Your task to perform on an android device: Clear the shopping cart on walmart. Add "apple airpods" to the cart on walmart Image 0: 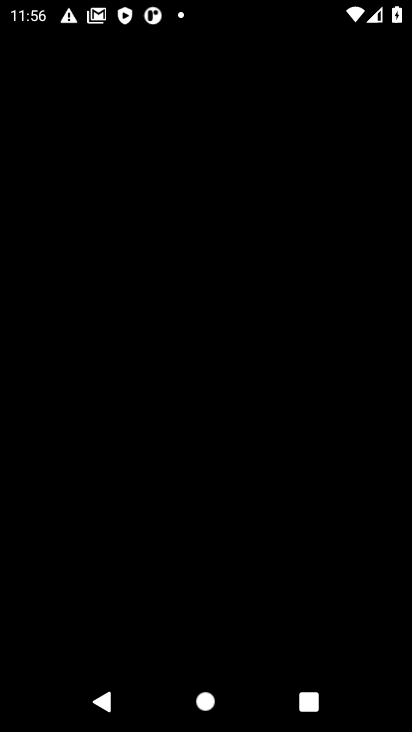
Step 0: press home button
Your task to perform on an android device: Clear the shopping cart on walmart. Add "apple airpods" to the cart on walmart Image 1: 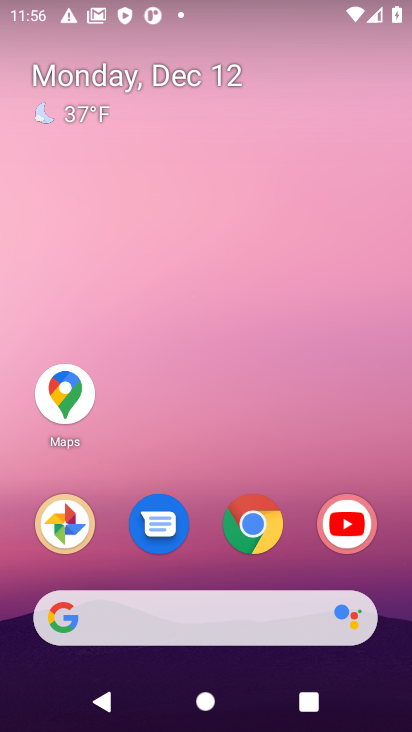
Step 1: click (250, 534)
Your task to perform on an android device: Clear the shopping cart on walmart. Add "apple airpods" to the cart on walmart Image 2: 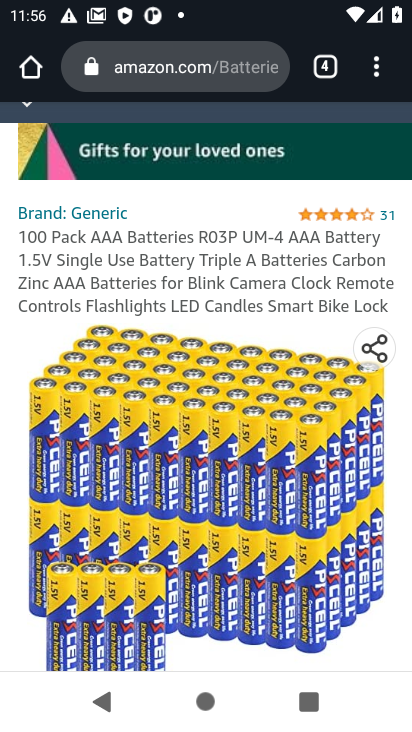
Step 2: click (155, 71)
Your task to perform on an android device: Clear the shopping cart on walmart. Add "apple airpods" to the cart on walmart Image 3: 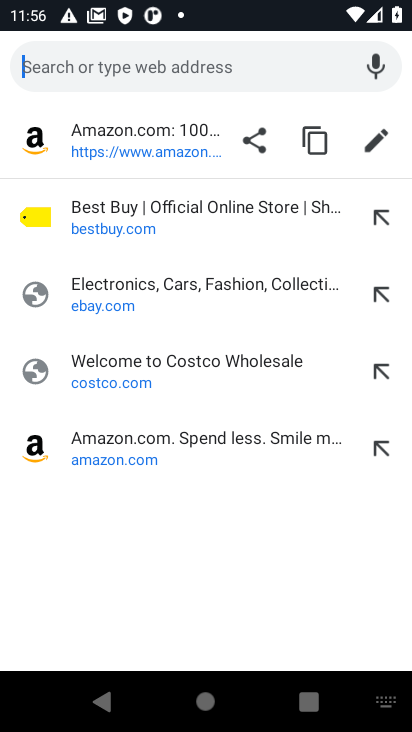
Step 3: type "walmart.com"
Your task to perform on an android device: Clear the shopping cart on walmart. Add "apple airpods" to the cart on walmart Image 4: 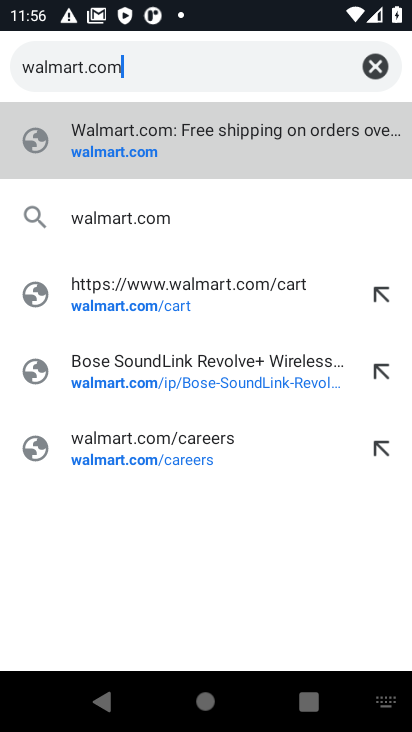
Step 4: click (110, 161)
Your task to perform on an android device: Clear the shopping cart on walmart. Add "apple airpods" to the cart on walmart Image 5: 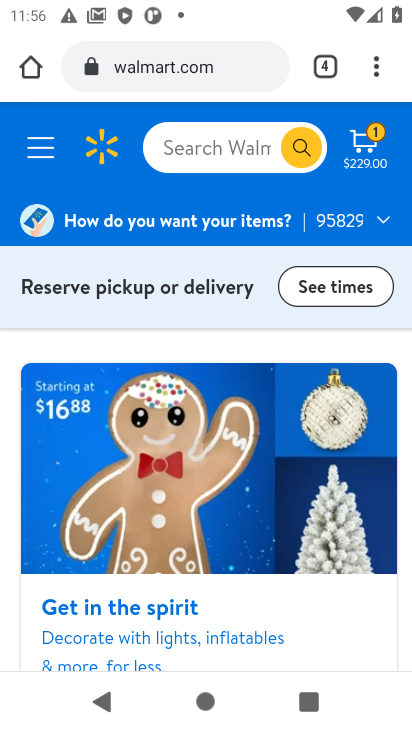
Step 5: click (370, 150)
Your task to perform on an android device: Clear the shopping cart on walmart. Add "apple airpods" to the cart on walmart Image 6: 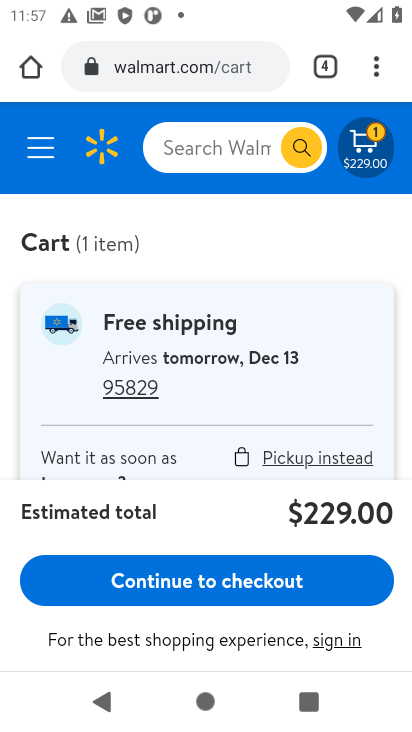
Step 6: drag from (236, 500) to (225, 317)
Your task to perform on an android device: Clear the shopping cart on walmart. Add "apple airpods" to the cart on walmart Image 7: 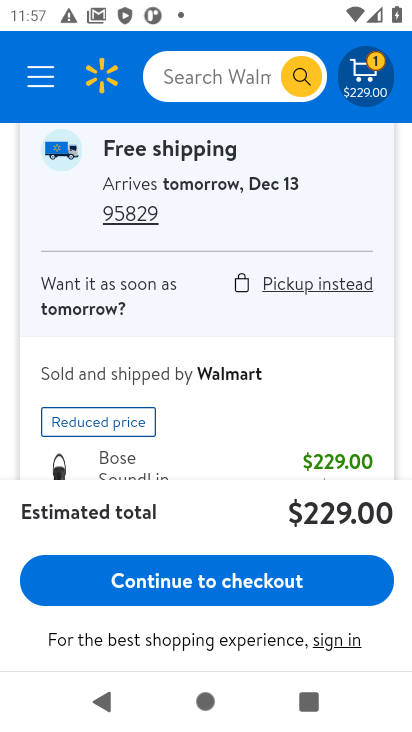
Step 7: drag from (226, 399) to (209, 186)
Your task to perform on an android device: Clear the shopping cart on walmart. Add "apple airpods" to the cart on walmart Image 8: 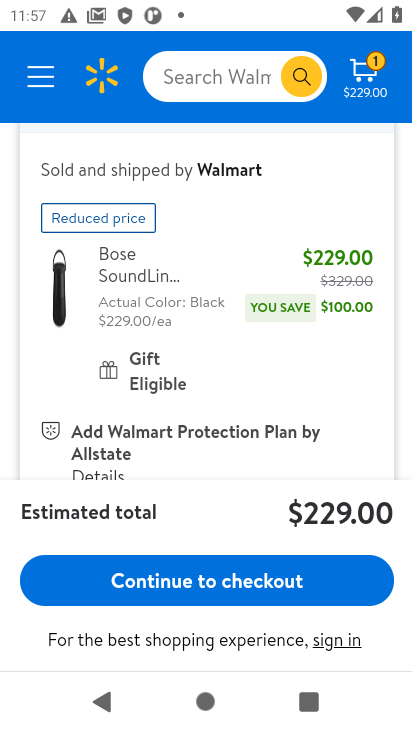
Step 8: drag from (154, 377) to (150, 189)
Your task to perform on an android device: Clear the shopping cart on walmart. Add "apple airpods" to the cart on walmart Image 9: 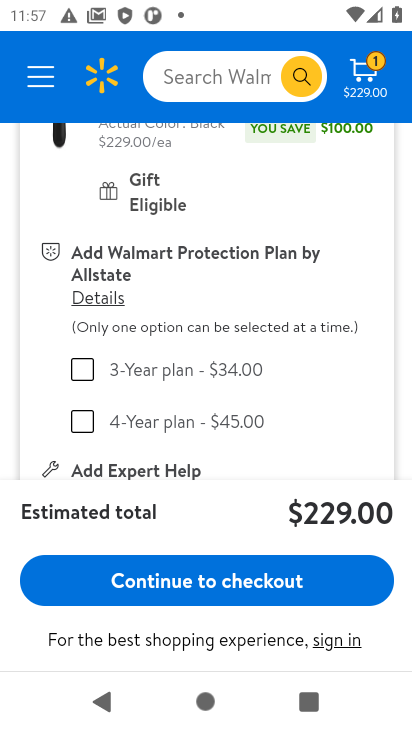
Step 9: drag from (246, 454) to (252, 222)
Your task to perform on an android device: Clear the shopping cart on walmart. Add "apple airpods" to the cart on walmart Image 10: 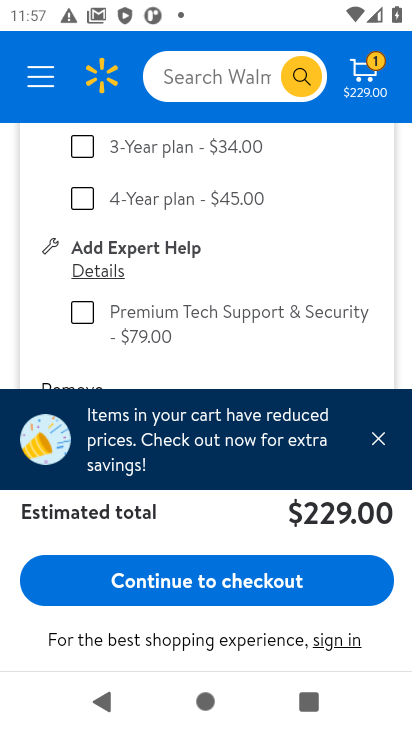
Step 10: click (80, 389)
Your task to perform on an android device: Clear the shopping cart on walmart. Add "apple airpods" to the cart on walmart Image 11: 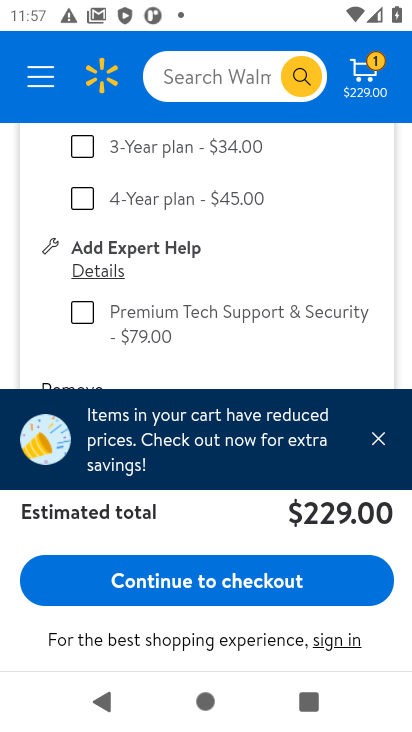
Step 11: click (383, 446)
Your task to perform on an android device: Clear the shopping cart on walmart. Add "apple airpods" to the cart on walmart Image 12: 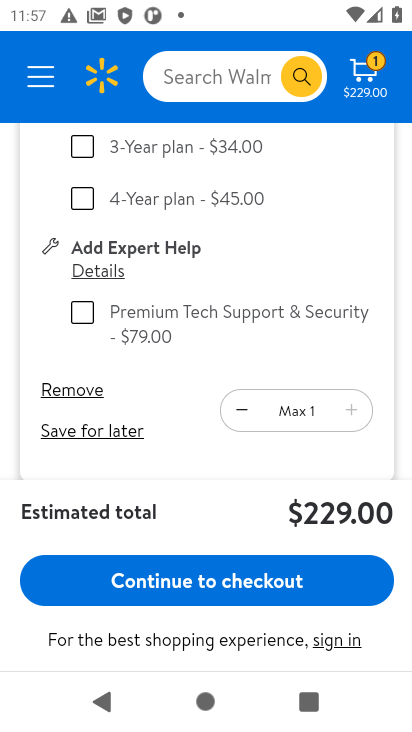
Step 12: click (79, 390)
Your task to perform on an android device: Clear the shopping cart on walmart. Add "apple airpods" to the cart on walmart Image 13: 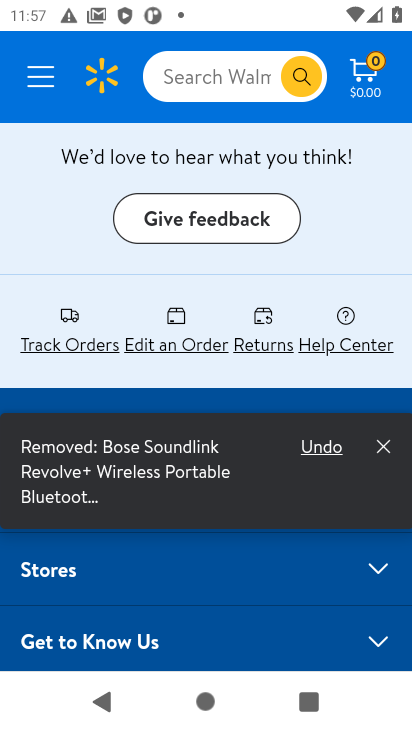
Step 13: drag from (349, 214) to (360, 395)
Your task to perform on an android device: Clear the shopping cart on walmart. Add "apple airpods" to the cart on walmart Image 14: 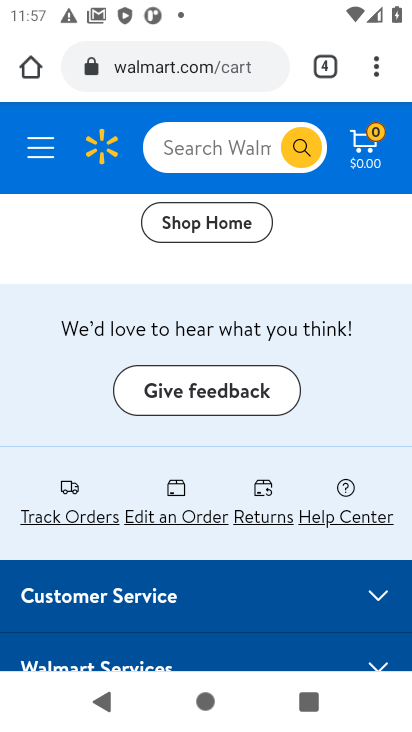
Step 14: click (189, 148)
Your task to perform on an android device: Clear the shopping cart on walmart. Add "apple airpods" to the cart on walmart Image 15: 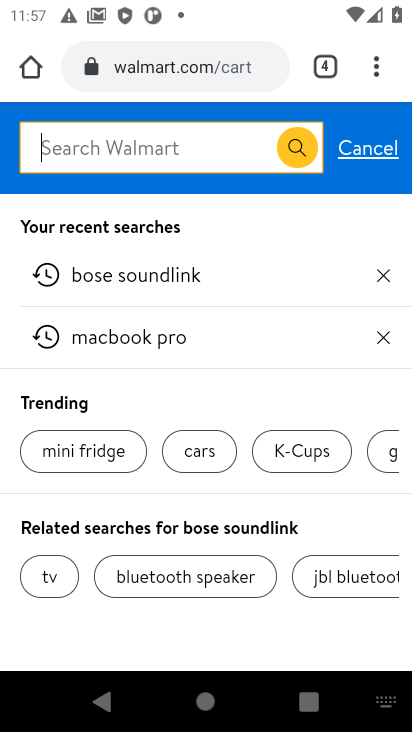
Step 15: type "apple airpods"
Your task to perform on an android device: Clear the shopping cart on walmart. Add "apple airpods" to the cart on walmart Image 16: 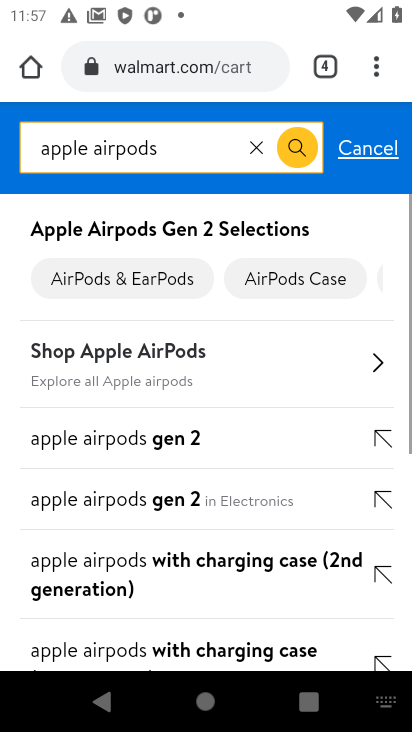
Step 16: click (299, 149)
Your task to perform on an android device: Clear the shopping cart on walmart. Add "apple airpods" to the cart on walmart Image 17: 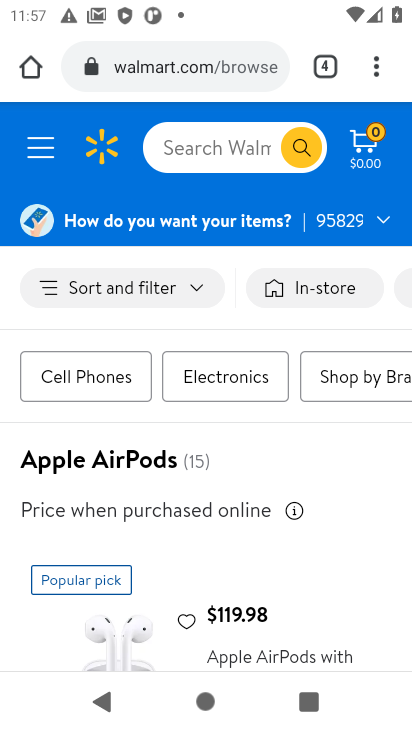
Step 17: drag from (259, 547) to (225, 287)
Your task to perform on an android device: Clear the shopping cart on walmart. Add "apple airpods" to the cart on walmart Image 18: 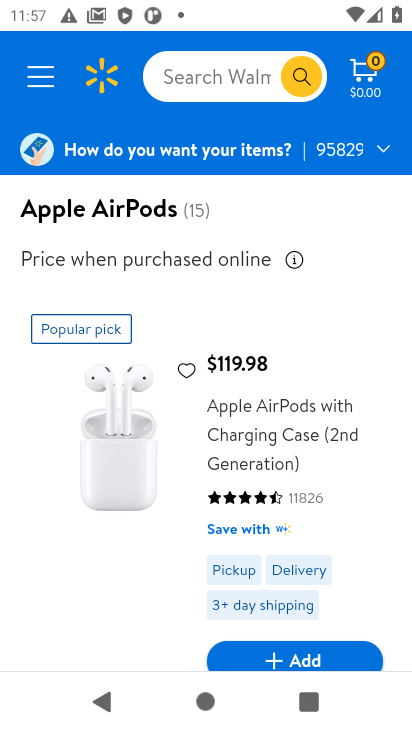
Step 18: drag from (164, 518) to (142, 324)
Your task to perform on an android device: Clear the shopping cart on walmart. Add "apple airpods" to the cart on walmart Image 19: 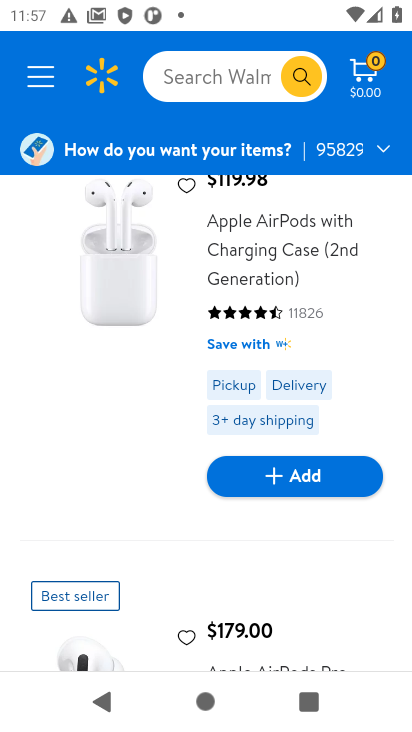
Step 19: click (289, 481)
Your task to perform on an android device: Clear the shopping cart on walmart. Add "apple airpods" to the cart on walmart Image 20: 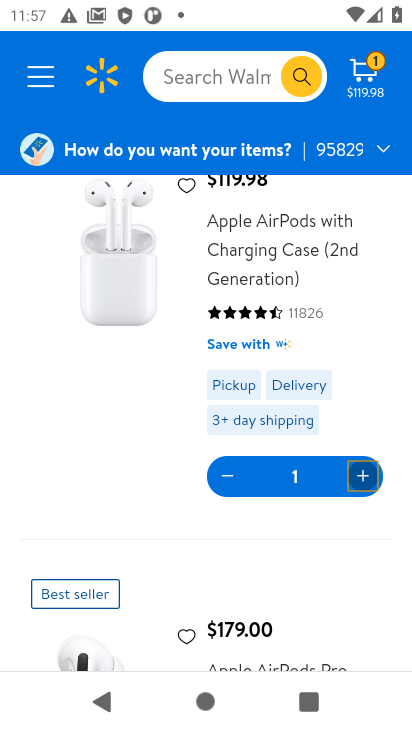
Step 20: task complete